Your task to perform on an android device: Search for seafood restaurants on Google Maps Image 0: 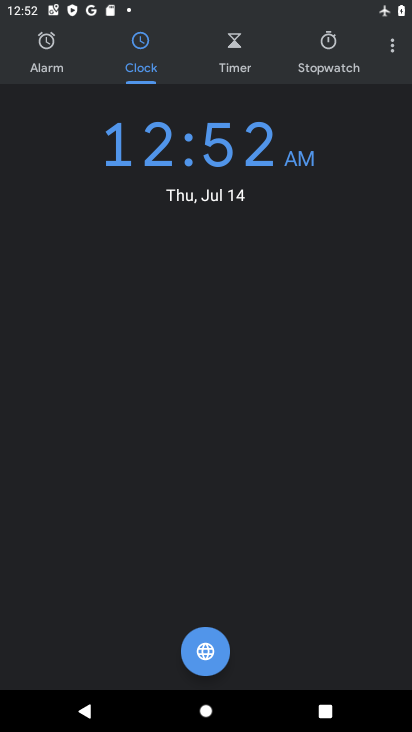
Step 0: press home button
Your task to perform on an android device: Search for seafood restaurants on Google Maps Image 1: 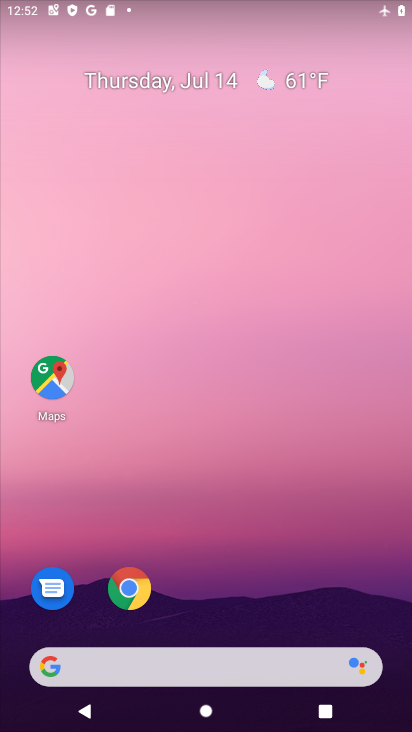
Step 1: click (53, 371)
Your task to perform on an android device: Search for seafood restaurants on Google Maps Image 2: 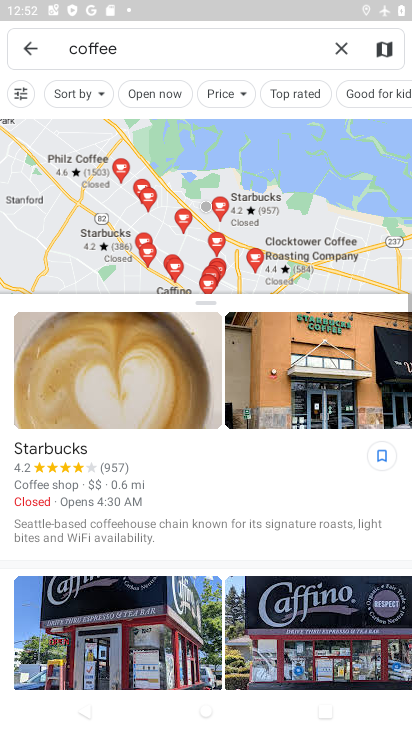
Step 2: click (342, 47)
Your task to perform on an android device: Search for seafood restaurants on Google Maps Image 3: 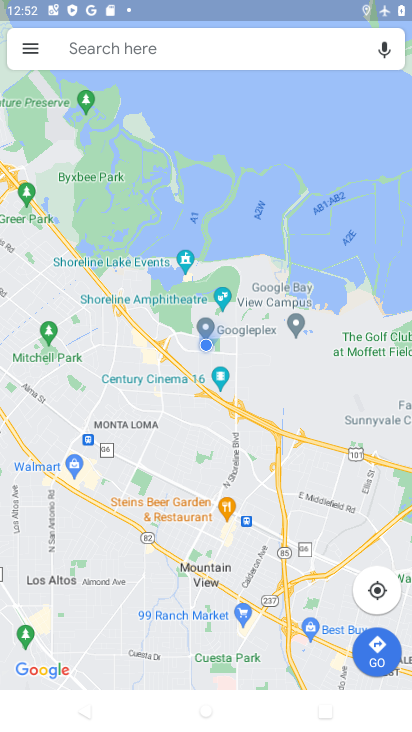
Step 3: type "seafood restaurants"
Your task to perform on an android device: Search for seafood restaurants on Google Maps Image 4: 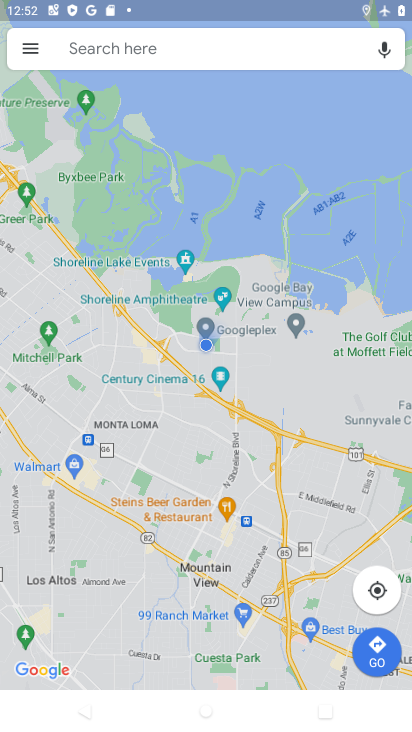
Step 4: click (170, 53)
Your task to perform on an android device: Search for seafood restaurants on Google Maps Image 5: 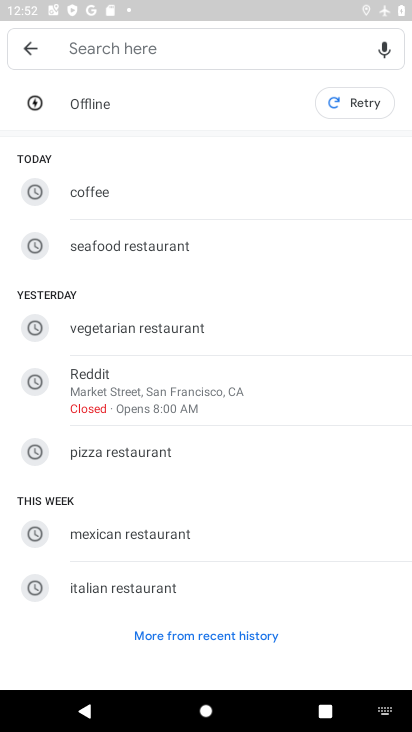
Step 5: click (207, 252)
Your task to perform on an android device: Search for seafood restaurants on Google Maps Image 6: 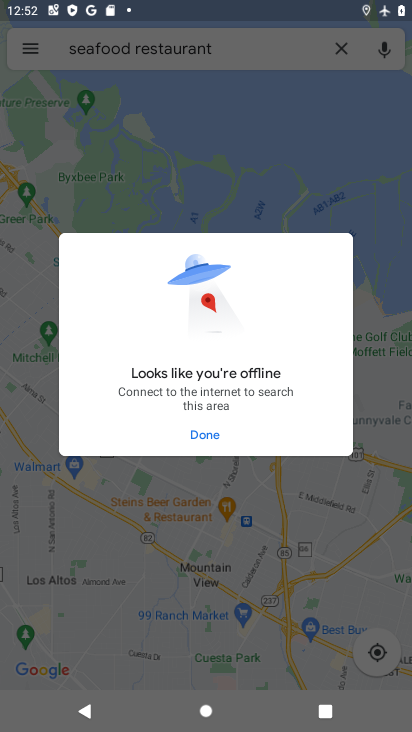
Step 6: task complete